Your task to perform on an android device: Open network settings Image 0: 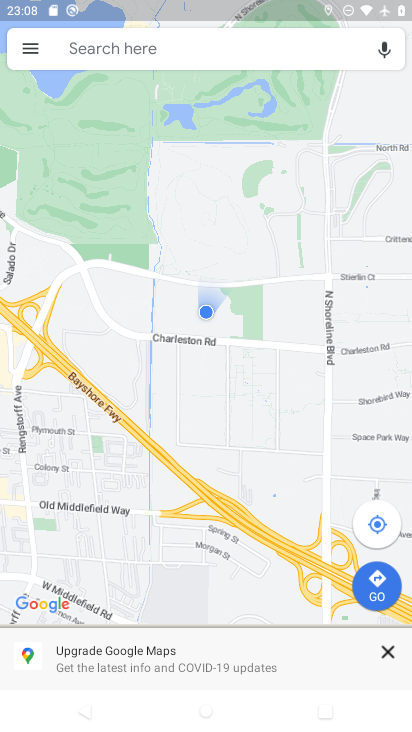
Step 0: press home button
Your task to perform on an android device: Open network settings Image 1: 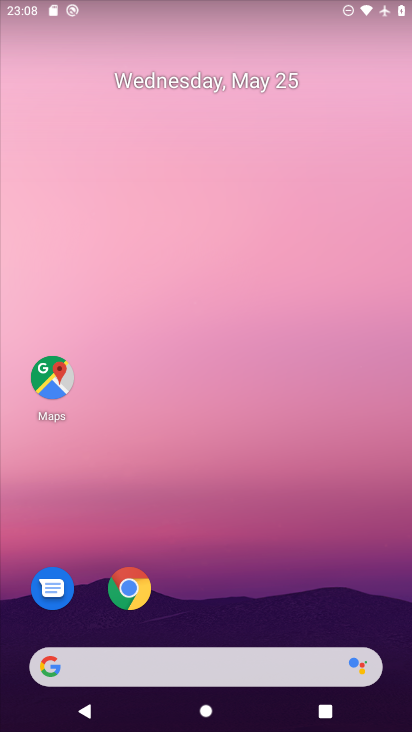
Step 1: drag from (265, 568) to (192, 197)
Your task to perform on an android device: Open network settings Image 2: 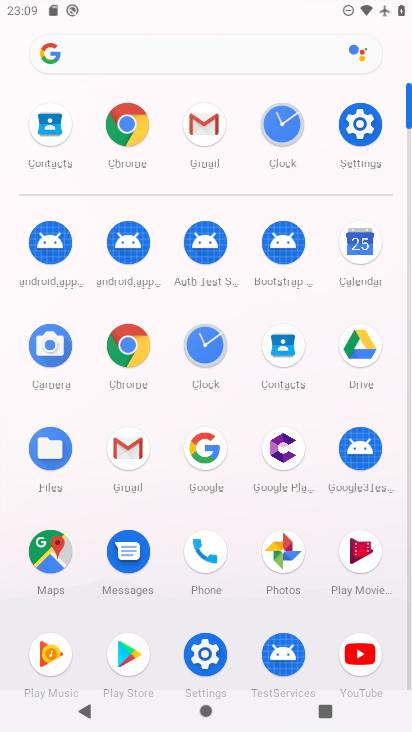
Step 2: click (369, 134)
Your task to perform on an android device: Open network settings Image 3: 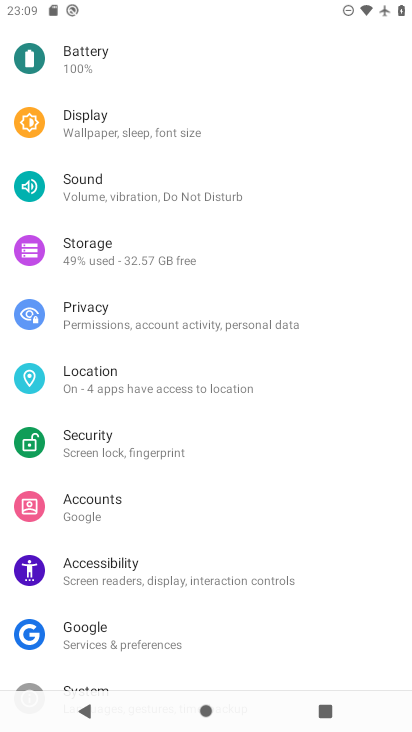
Step 3: drag from (122, 124) to (142, 533)
Your task to perform on an android device: Open network settings Image 4: 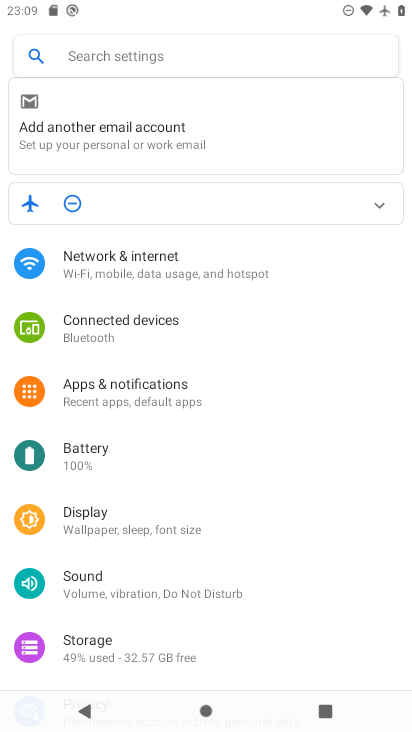
Step 4: click (153, 253)
Your task to perform on an android device: Open network settings Image 5: 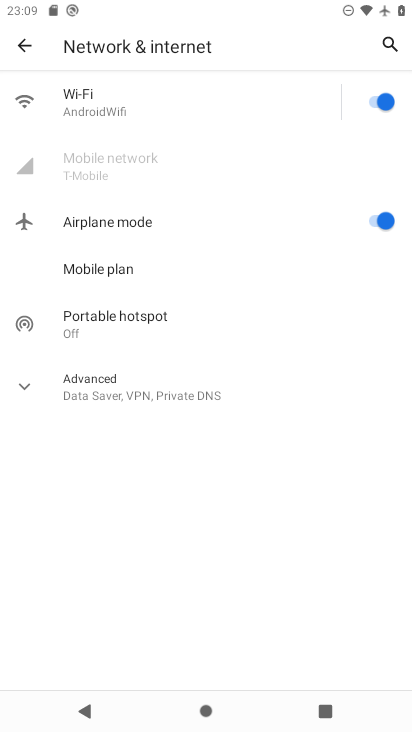
Step 5: task complete